Your task to perform on an android device: Is it going to rain this weekend? Image 0: 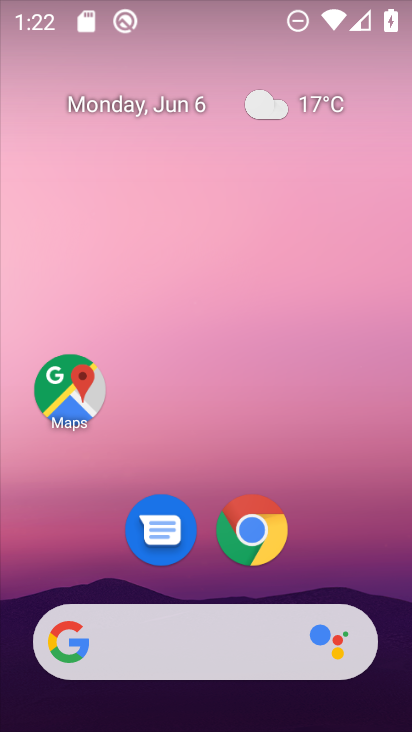
Step 0: drag from (339, 555) to (255, 383)
Your task to perform on an android device: Is it going to rain this weekend? Image 1: 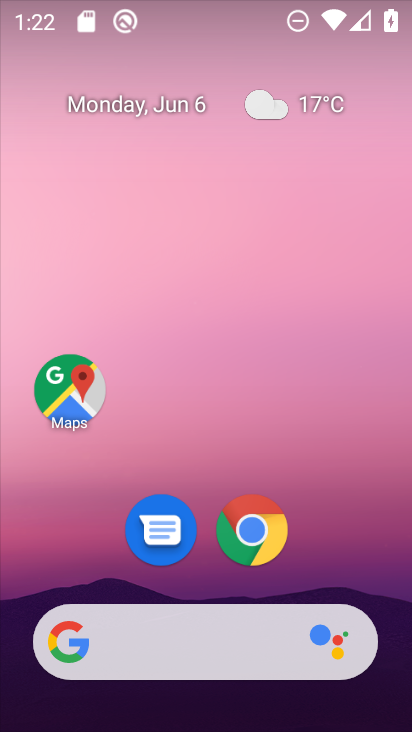
Step 1: drag from (328, 494) to (324, 14)
Your task to perform on an android device: Is it going to rain this weekend? Image 2: 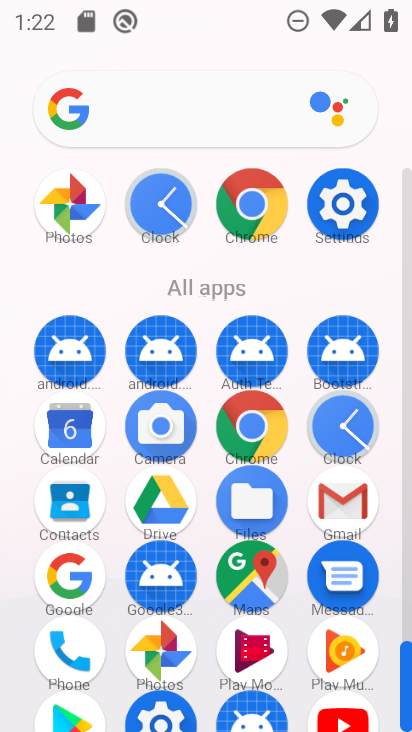
Step 2: drag from (302, 290) to (288, 135)
Your task to perform on an android device: Is it going to rain this weekend? Image 3: 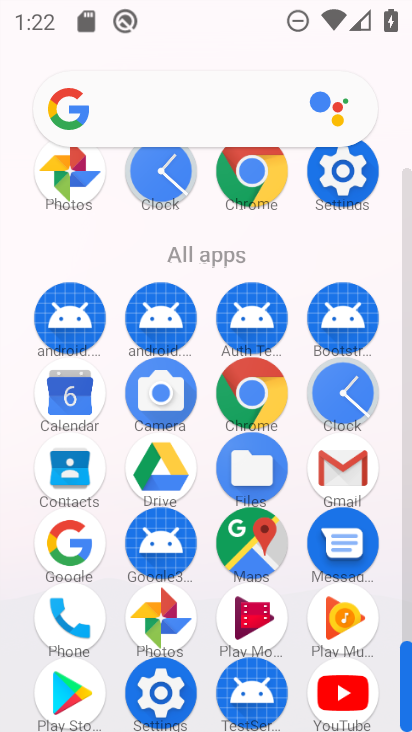
Step 3: click (67, 540)
Your task to perform on an android device: Is it going to rain this weekend? Image 4: 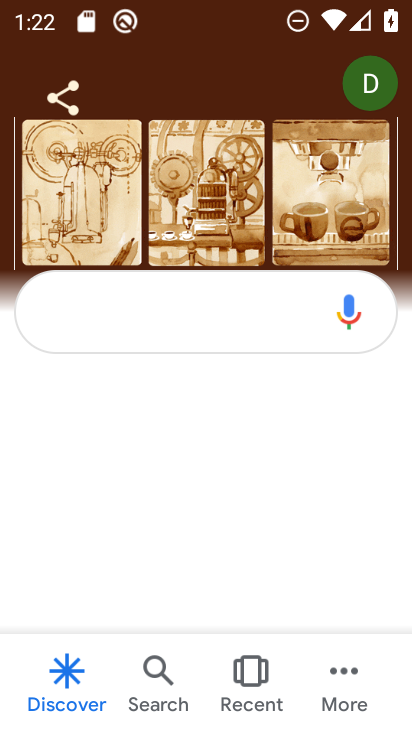
Step 4: click (258, 299)
Your task to perform on an android device: Is it going to rain this weekend? Image 5: 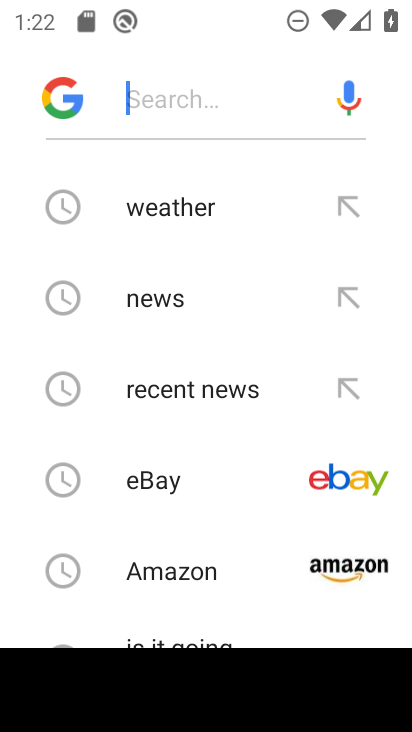
Step 5: type "Is it going to rain this weekend?"
Your task to perform on an android device: Is it going to rain this weekend? Image 6: 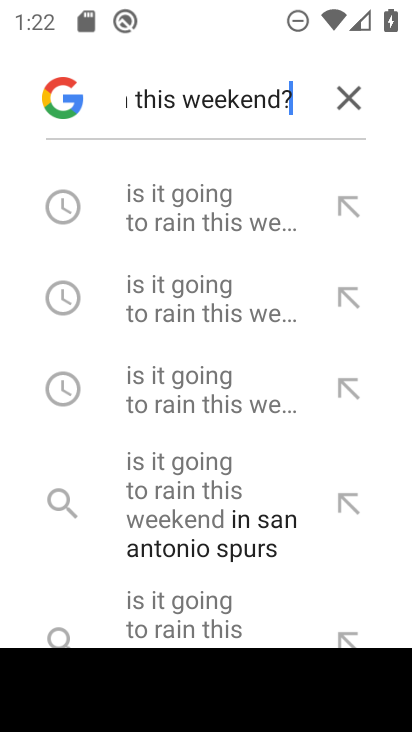
Step 6: click (202, 227)
Your task to perform on an android device: Is it going to rain this weekend? Image 7: 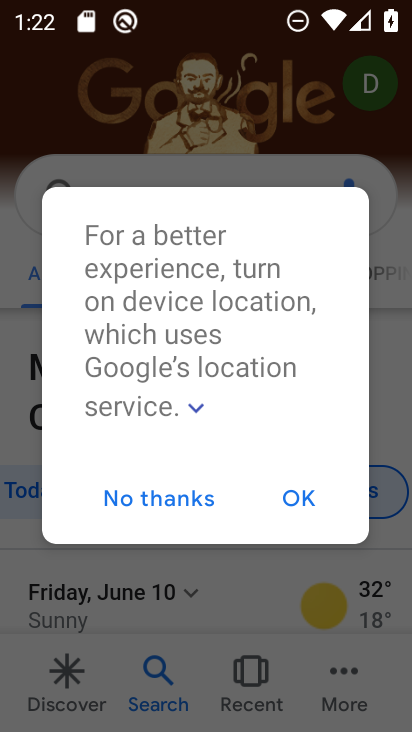
Step 7: click (202, 499)
Your task to perform on an android device: Is it going to rain this weekend? Image 8: 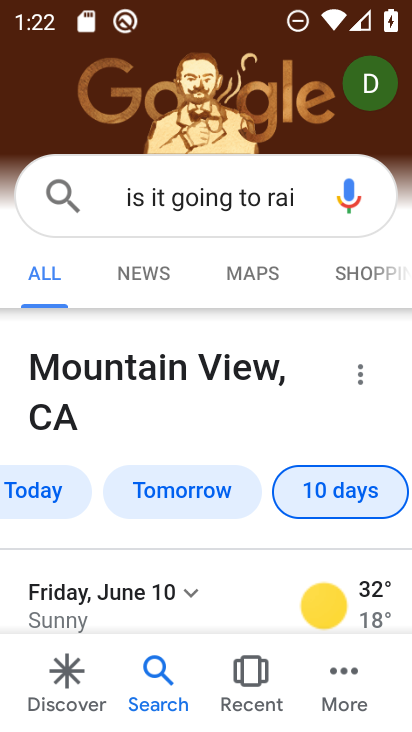
Step 8: task complete